Your task to perform on an android device: Go to accessibility settings Image 0: 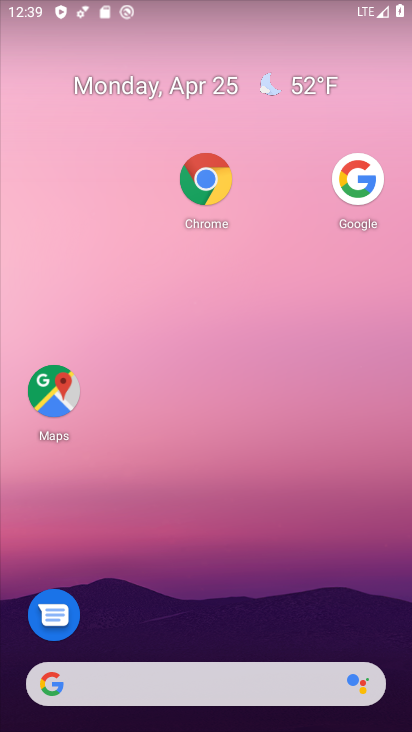
Step 0: press home button
Your task to perform on an android device: Go to accessibility settings Image 1: 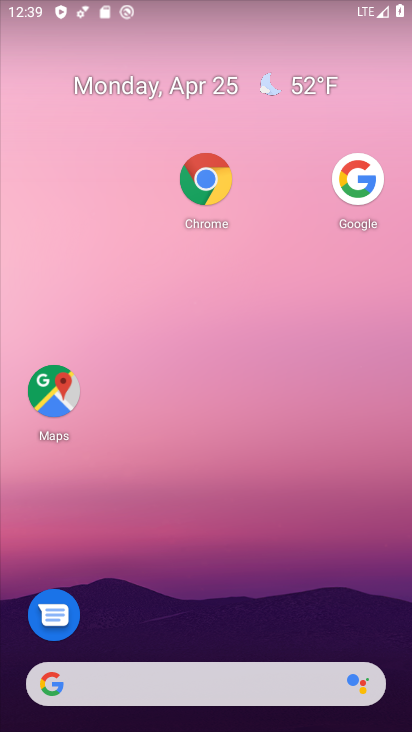
Step 1: drag from (174, 633) to (319, 134)
Your task to perform on an android device: Go to accessibility settings Image 2: 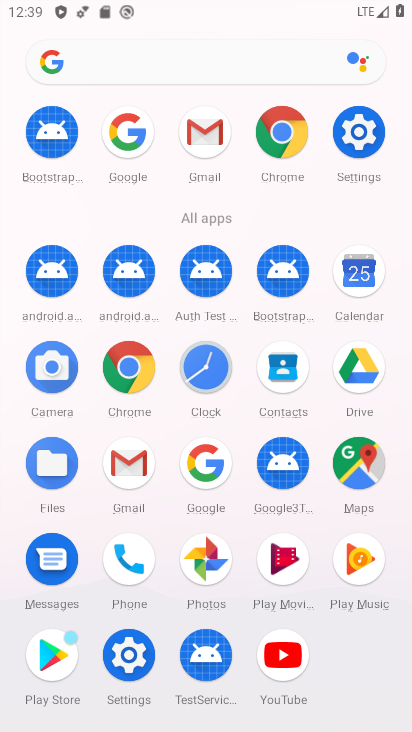
Step 2: click (366, 143)
Your task to perform on an android device: Go to accessibility settings Image 3: 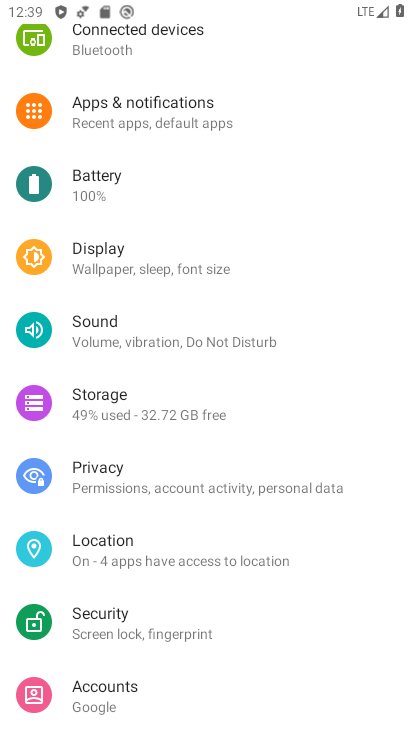
Step 3: drag from (228, 583) to (411, 28)
Your task to perform on an android device: Go to accessibility settings Image 4: 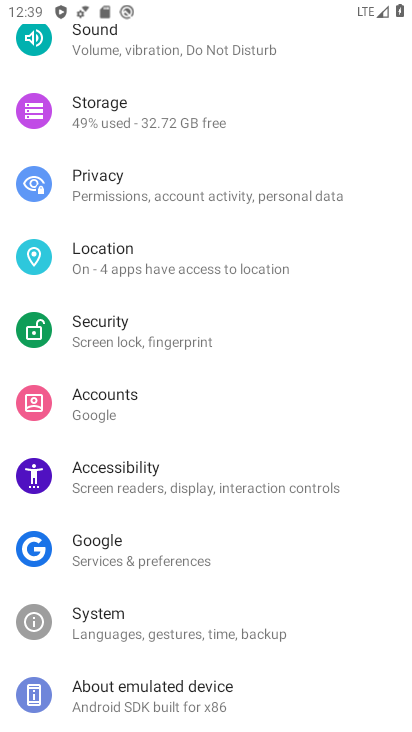
Step 4: click (157, 482)
Your task to perform on an android device: Go to accessibility settings Image 5: 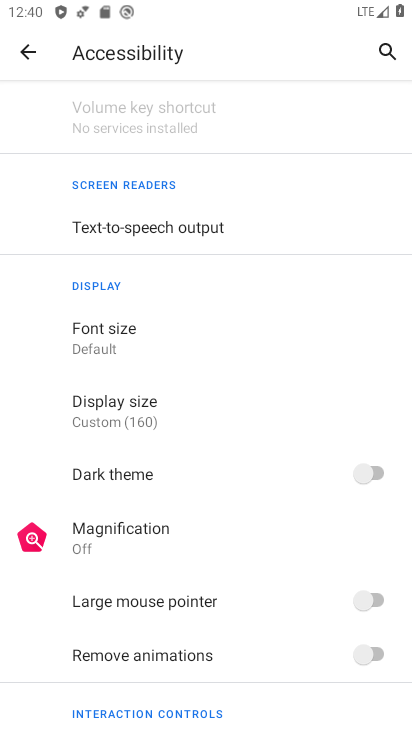
Step 5: task complete